Your task to perform on an android device: delete a single message in the gmail app Image 0: 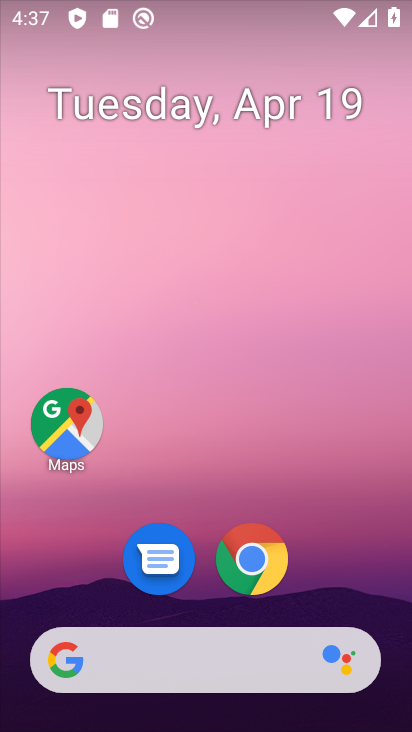
Step 0: drag from (353, 569) to (326, 43)
Your task to perform on an android device: delete a single message in the gmail app Image 1: 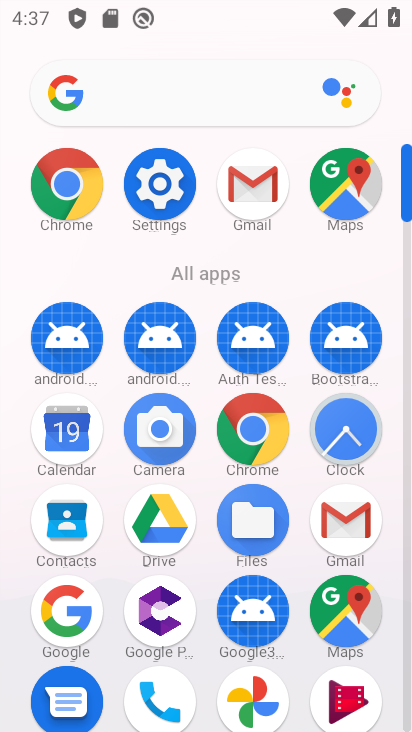
Step 1: click (260, 213)
Your task to perform on an android device: delete a single message in the gmail app Image 2: 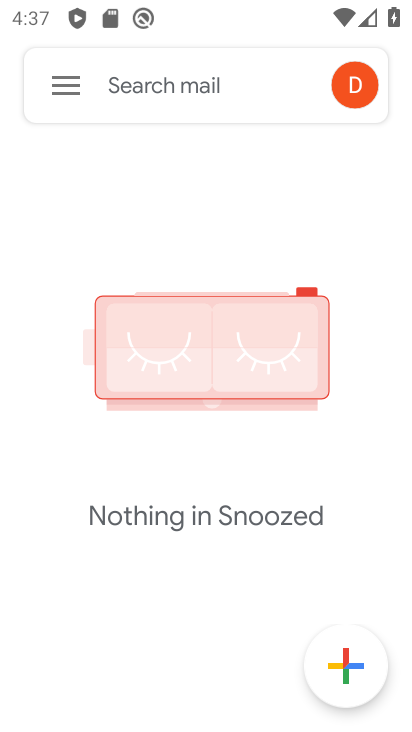
Step 2: click (68, 86)
Your task to perform on an android device: delete a single message in the gmail app Image 3: 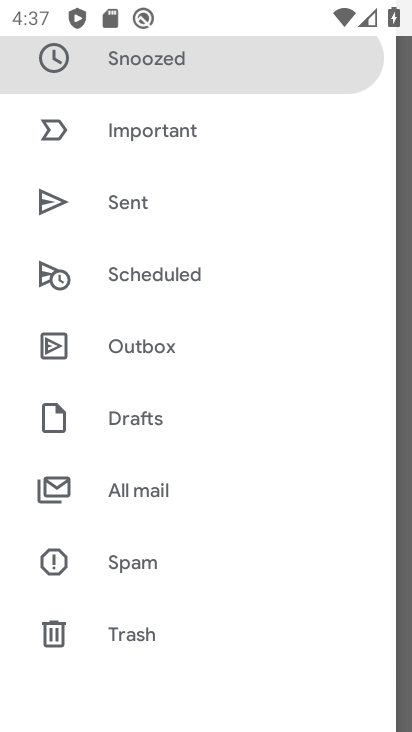
Step 3: click (126, 496)
Your task to perform on an android device: delete a single message in the gmail app Image 4: 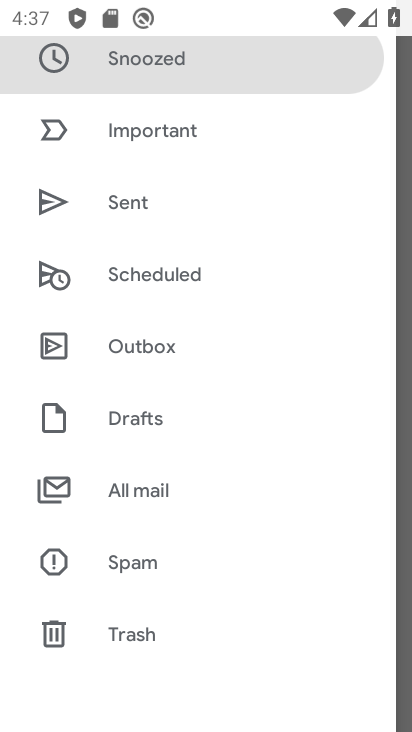
Step 4: click (126, 496)
Your task to perform on an android device: delete a single message in the gmail app Image 5: 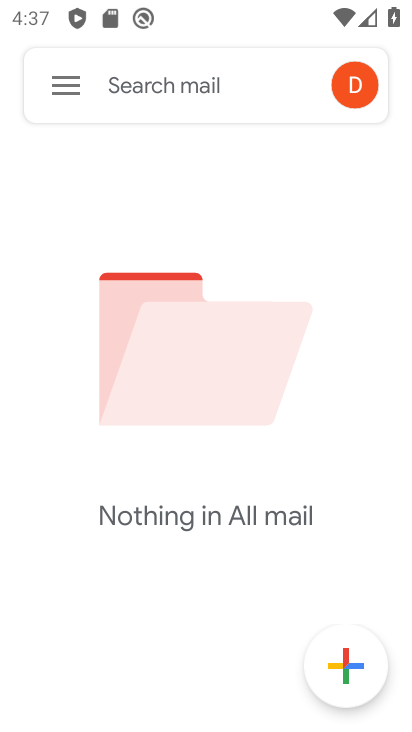
Step 5: click (126, 496)
Your task to perform on an android device: delete a single message in the gmail app Image 6: 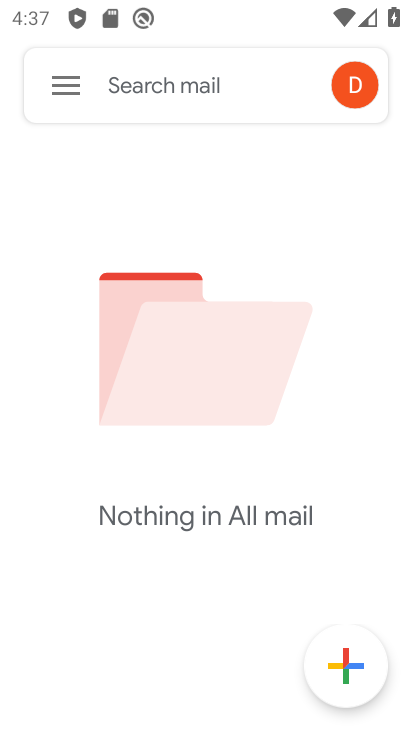
Step 6: task complete